Your task to perform on an android device: Go to wifi settings Image 0: 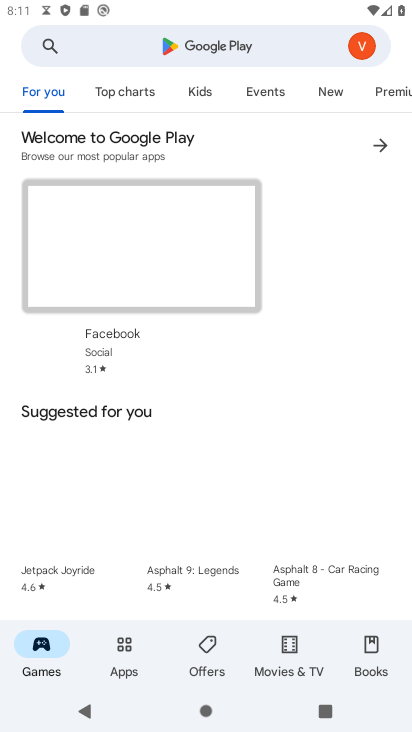
Step 0: press home button
Your task to perform on an android device: Go to wifi settings Image 1: 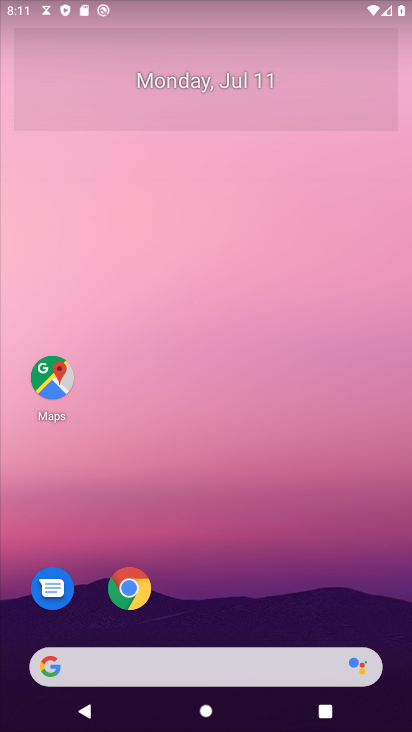
Step 1: drag from (252, 600) to (217, 209)
Your task to perform on an android device: Go to wifi settings Image 2: 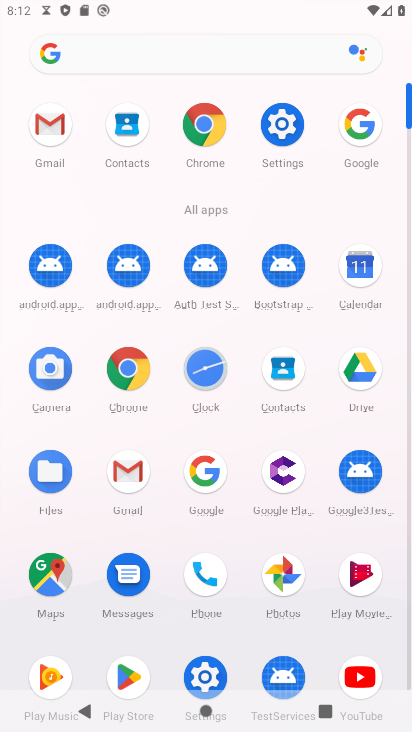
Step 2: click (269, 121)
Your task to perform on an android device: Go to wifi settings Image 3: 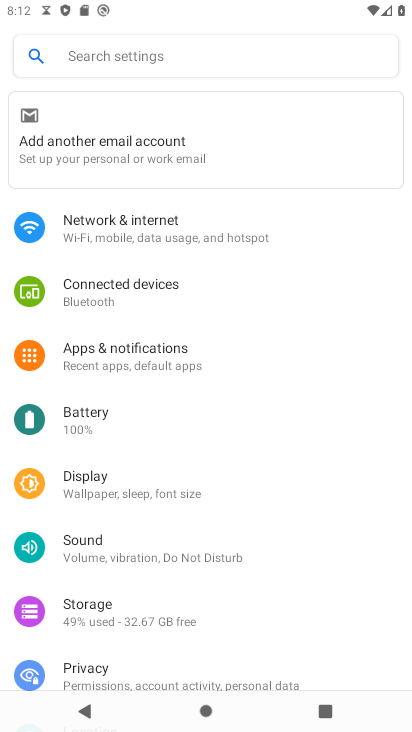
Step 3: drag from (130, 588) to (129, 497)
Your task to perform on an android device: Go to wifi settings Image 4: 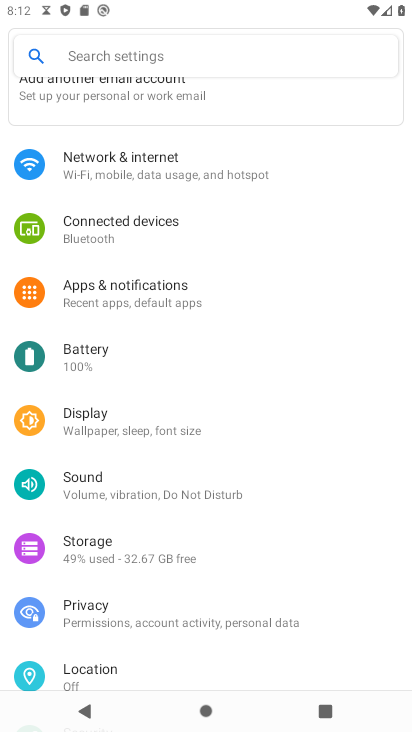
Step 4: click (130, 179)
Your task to perform on an android device: Go to wifi settings Image 5: 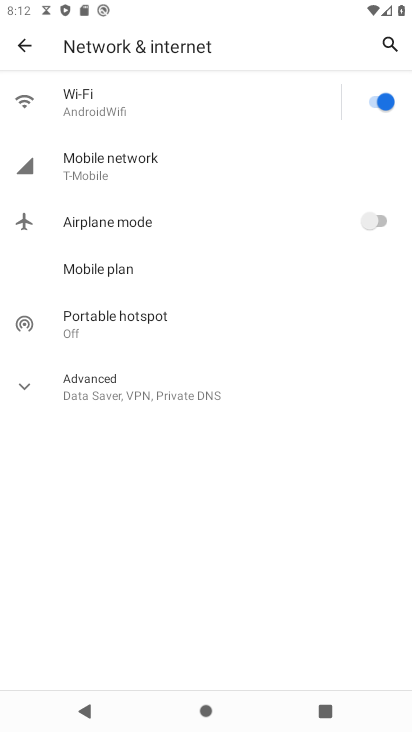
Step 5: click (166, 108)
Your task to perform on an android device: Go to wifi settings Image 6: 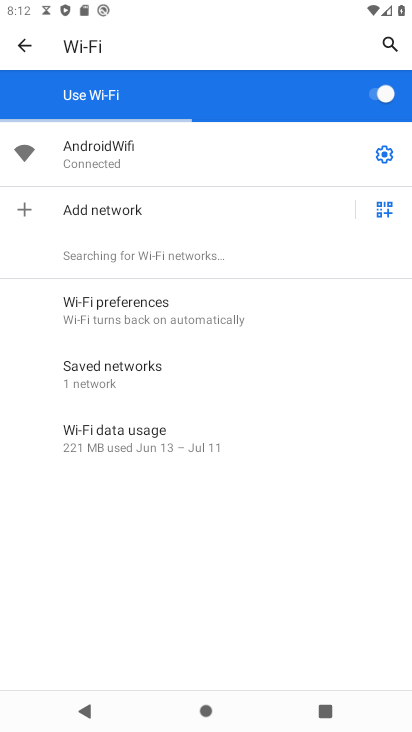
Step 6: task complete